Your task to perform on an android device: turn notification dots off Image 0: 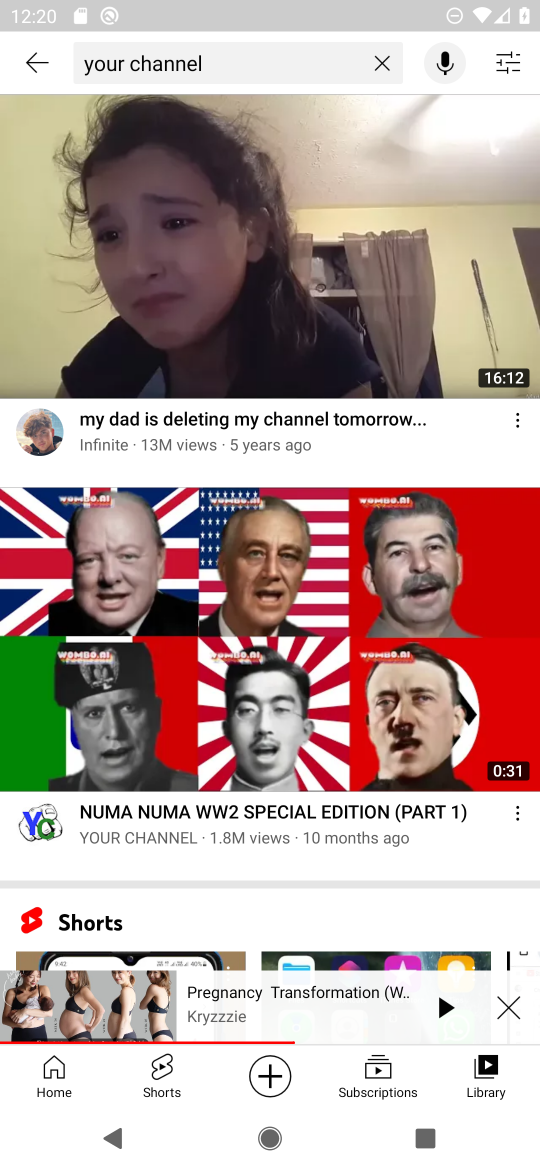
Step 0: press home button
Your task to perform on an android device: turn notification dots off Image 1: 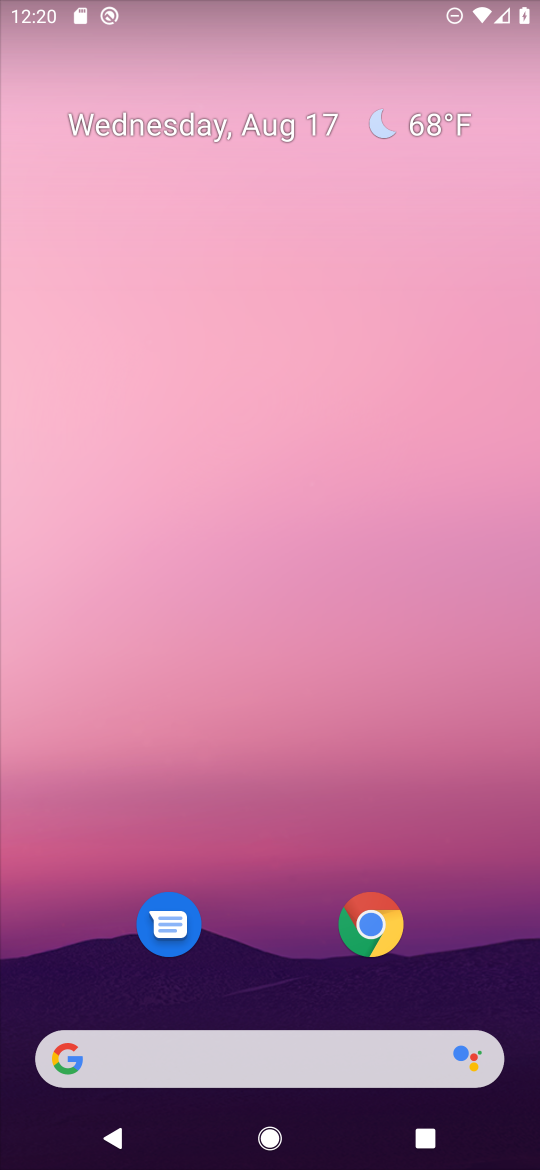
Step 1: drag from (232, 971) to (167, 47)
Your task to perform on an android device: turn notification dots off Image 2: 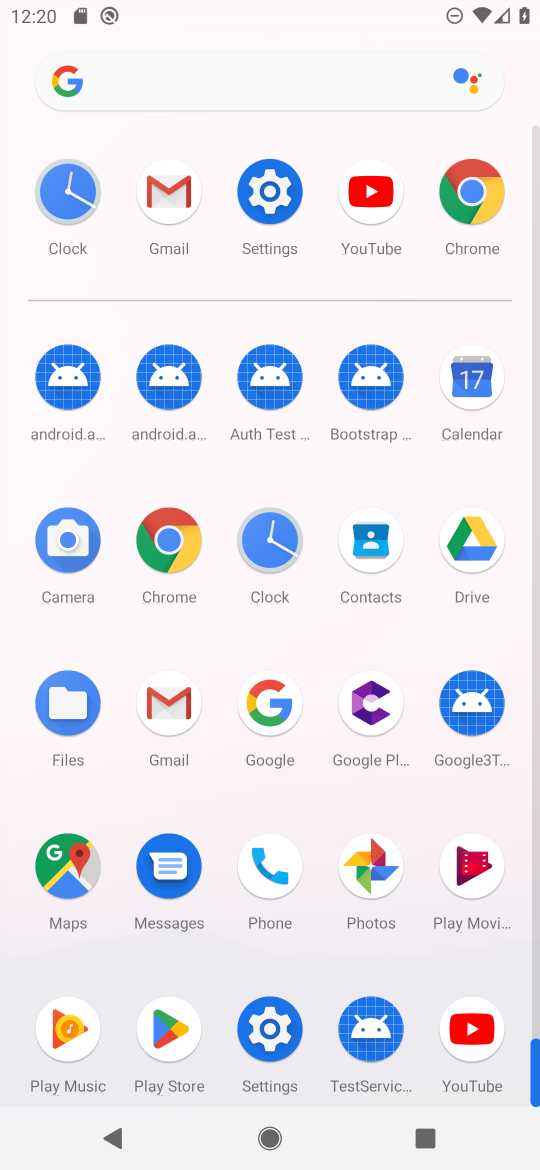
Step 2: click (280, 241)
Your task to perform on an android device: turn notification dots off Image 3: 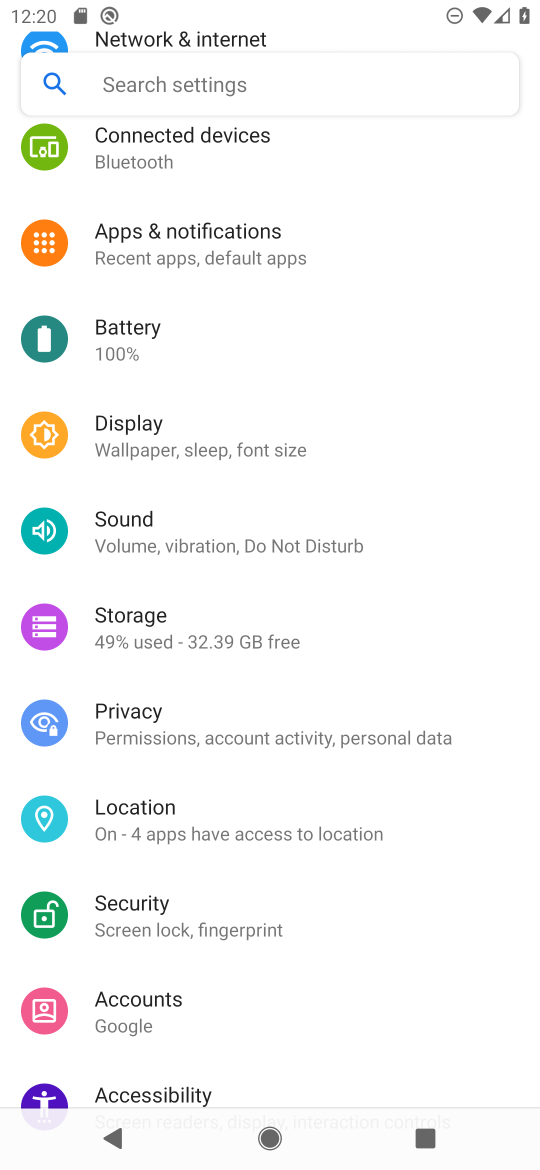
Step 3: click (215, 258)
Your task to perform on an android device: turn notification dots off Image 4: 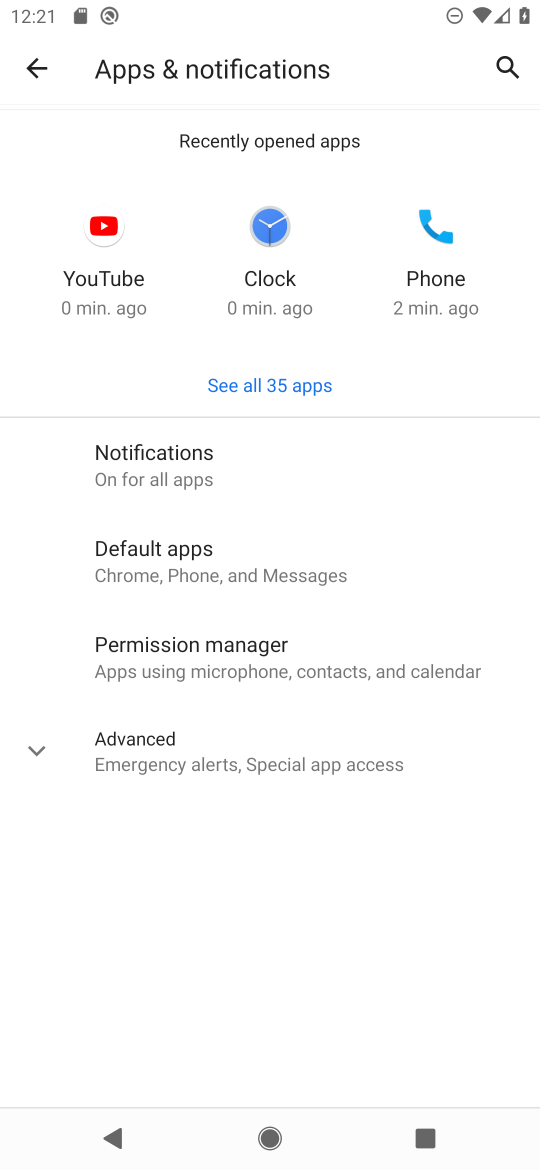
Step 4: click (145, 483)
Your task to perform on an android device: turn notification dots off Image 5: 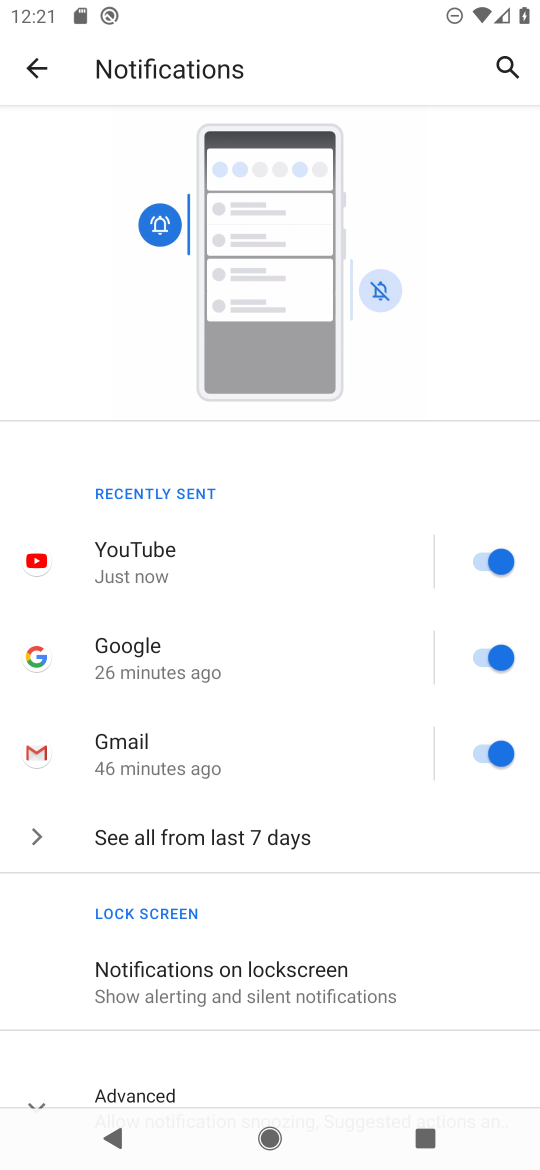
Step 5: drag from (427, 915) to (234, 52)
Your task to perform on an android device: turn notification dots off Image 6: 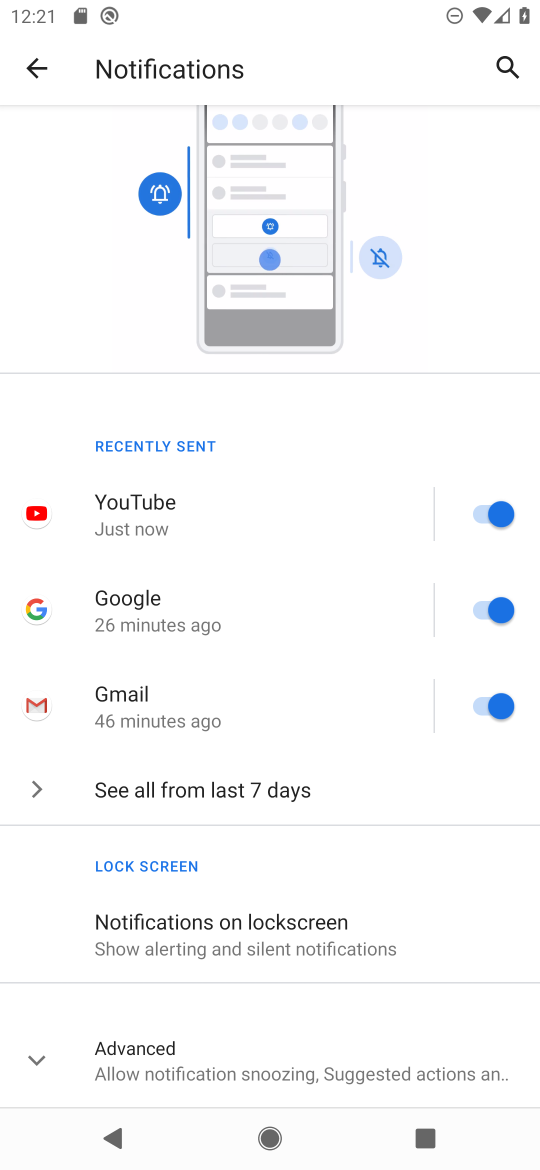
Step 6: click (357, 950)
Your task to perform on an android device: turn notification dots off Image 7: 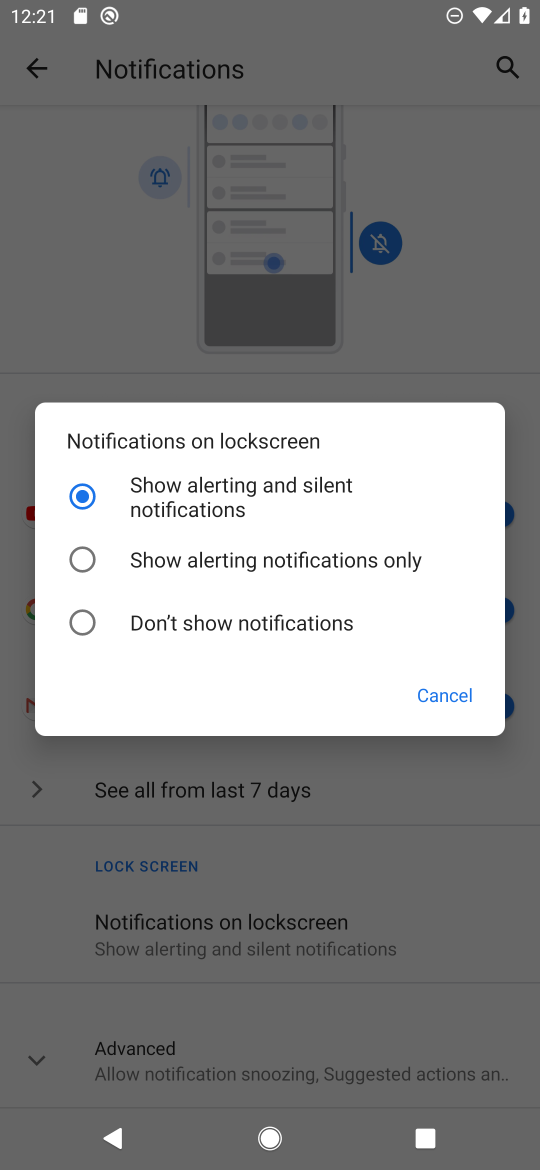
Step 7: click (125, 635)
Your task to perform on an android device: turn notification dots off Image 8: 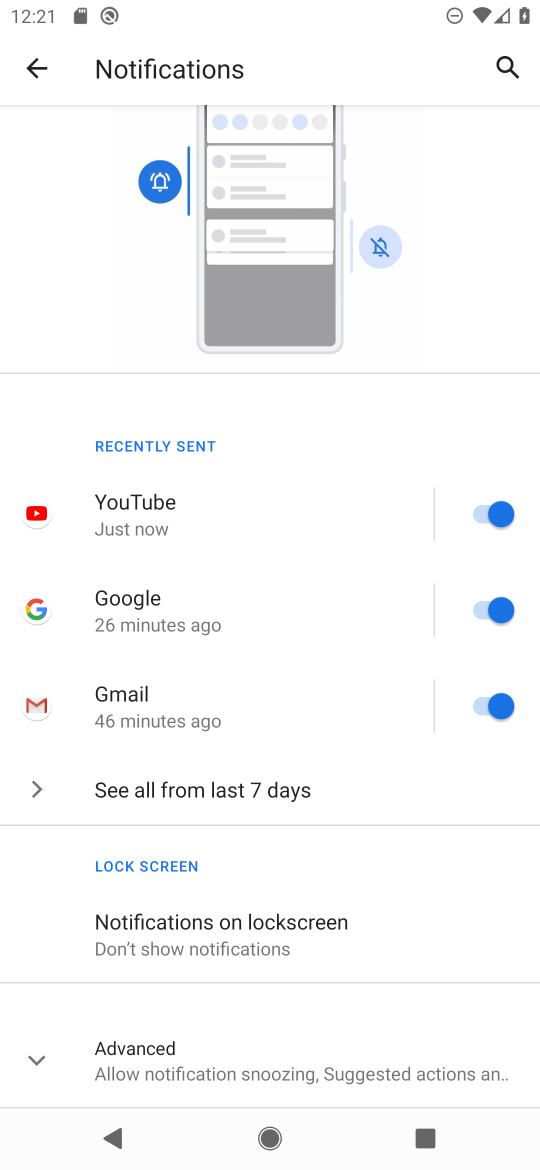
Step 8: task complete